Your task to perform on an android device: Open Google Chrome and open the bookmarks view Image 0: 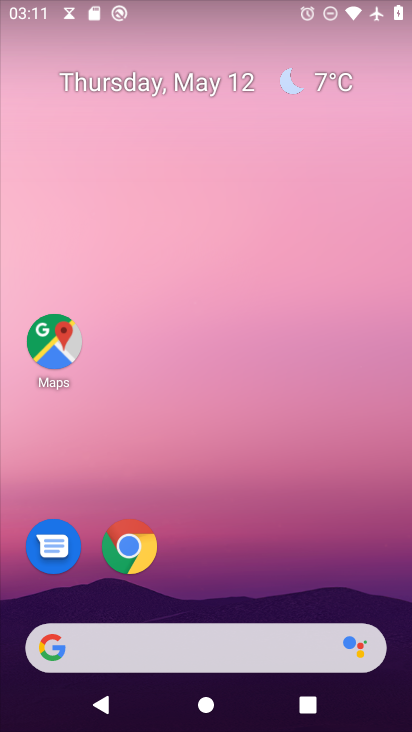
Step 0: drag from (175, 645) to (295, 216)
Your task to perform on an android device: Open Google Chrome and open the bookmarks view Image 1: 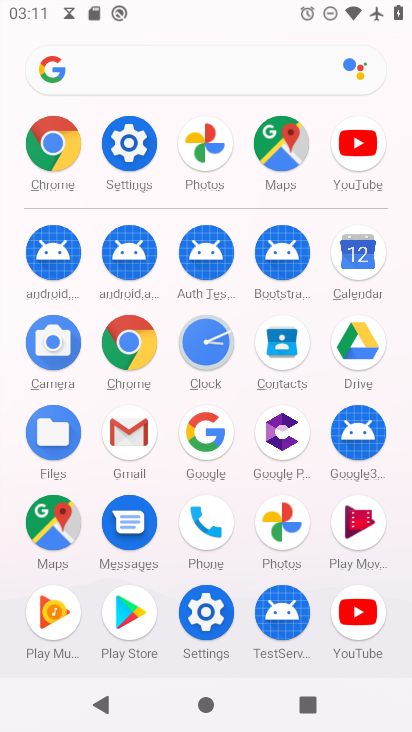
Step 1: click (50, 158)
Your task to perform on an android device: Open Google Chrome and open the bookmarks view Image 2: 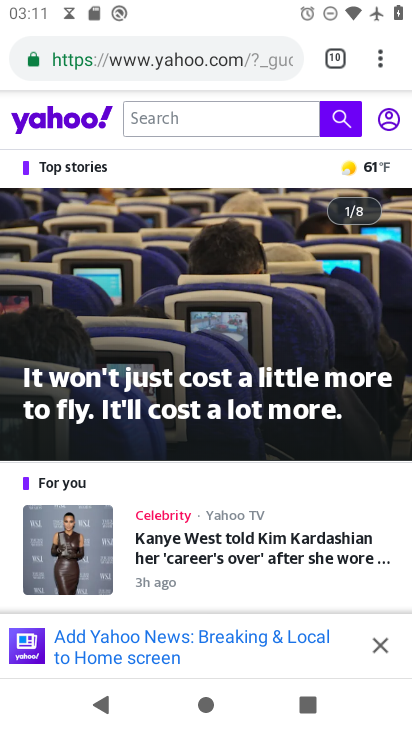
Step 2: task complete